Your task to perform on an android device: turn on location history Image 0: 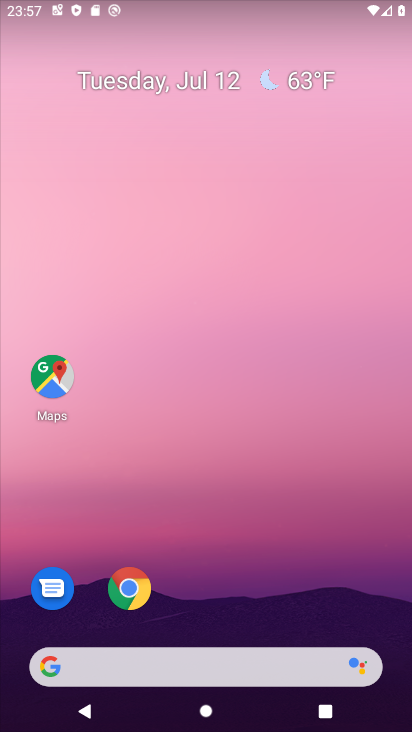
Step 0: drag from (30, 713) to (280, 10)
Your task to perform on an android device: turn on location history Image 1: 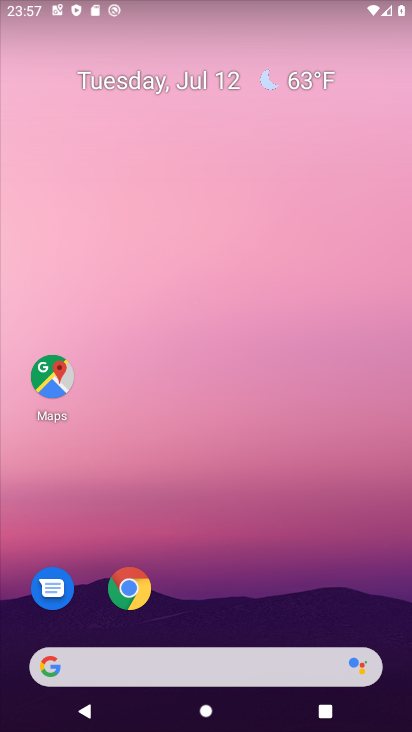
Step 1: drag from (75, 605) to (298, 6)
Your task to perform on an android device: turn on location history Image 2: 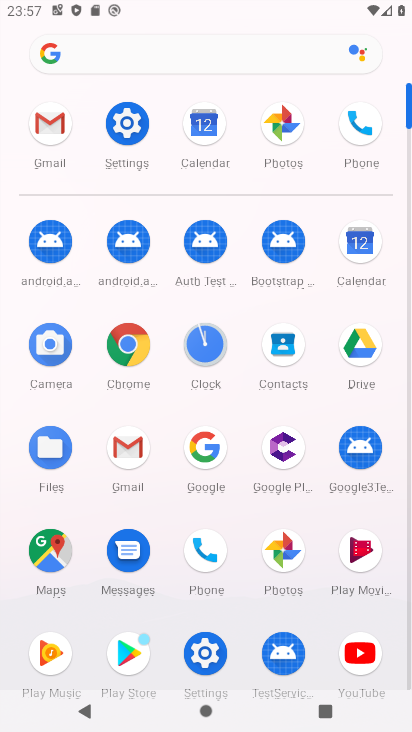
Step 2: click (197, 640)
Your task to perform on an android device: turn on location history Image 3: 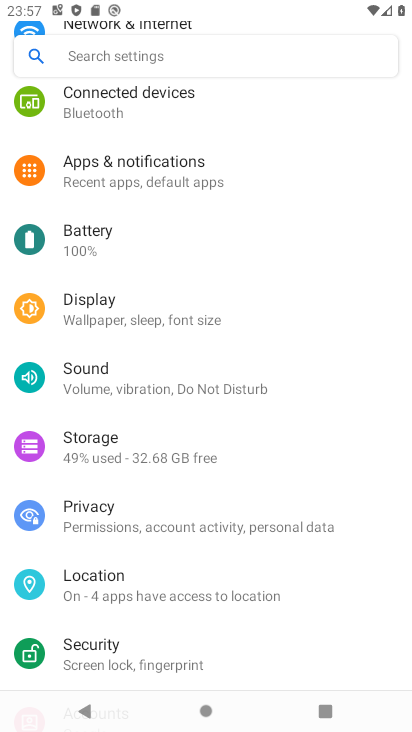
Step 3: click (99, 583)
Your task to perform on an android device: turn on location history Image 4: 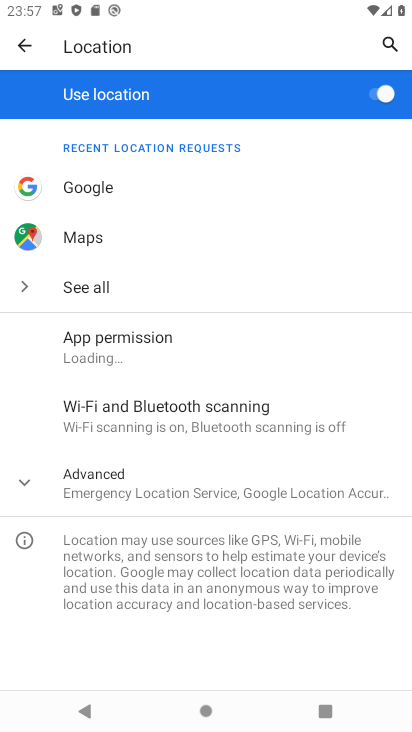
Step 4: click (110, 489)
Your task to perform on an android device: turn on location history Image 5: 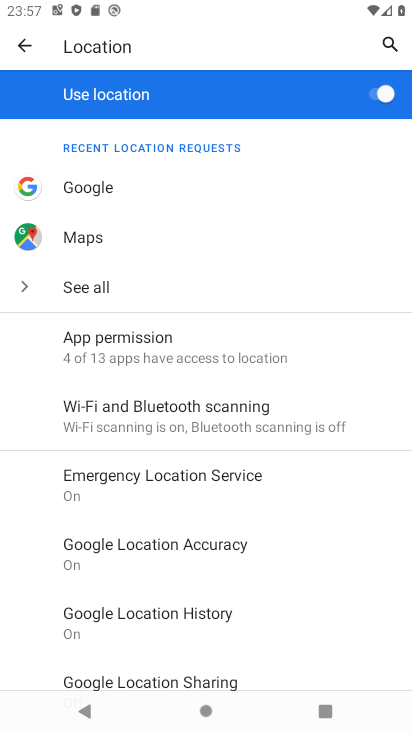
Step 5: click (134, 614)
Your task to perform on an android device: turn on location history Image 6: 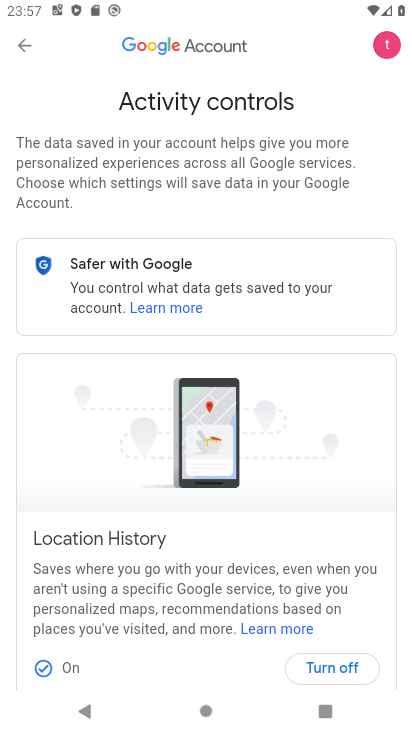
Step 6: task complete